Your task to perform on an android device: show emergency info Image 0: 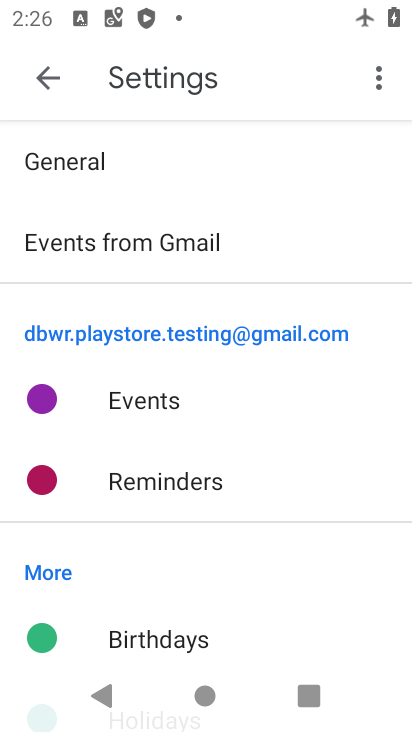
Step 0: press home button
Your task to perform on an android device: show emergency info Image 1: 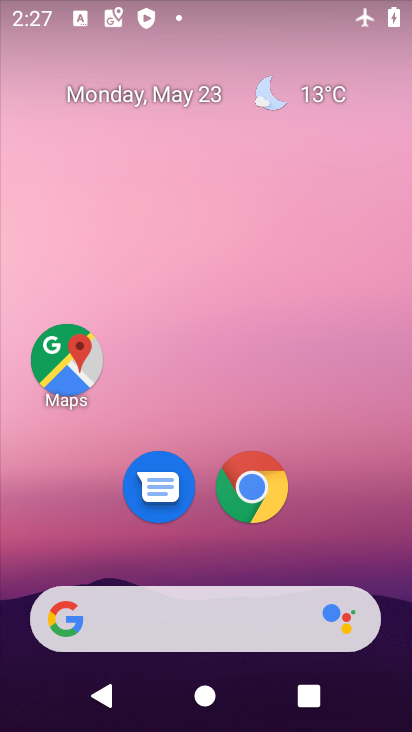
Step 1: drag from (396, 614) to (394, 119)
Your task to perform on an android device: show emergency info Image 2: 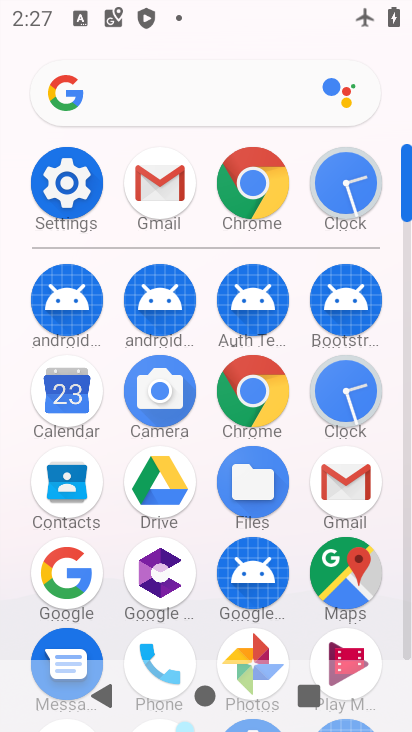
Step 2: click (407, 643)
Your task to perform on an android device: show emergency info Image 3: 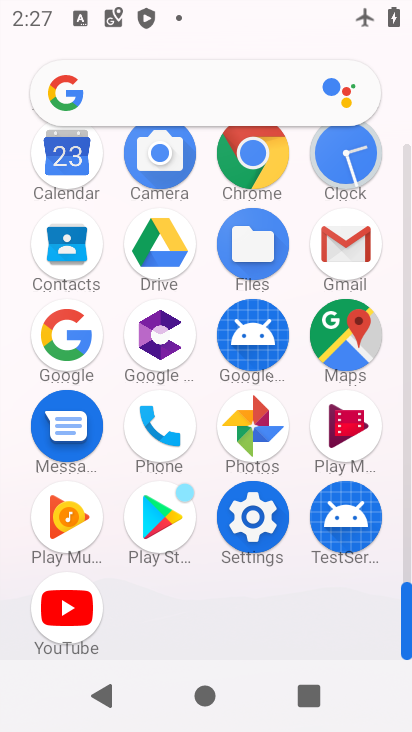
Step 3: click (250, 510)
Your task to perform on an android device: show emergency info Image 4: 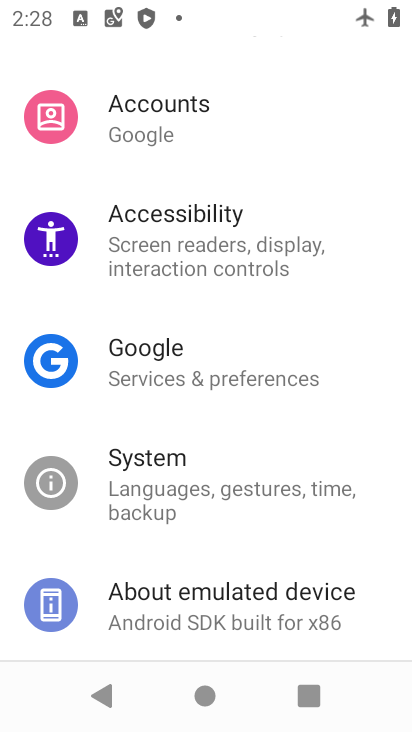
Step 4: drag from (262, 570) to (250, 305)
Your task to perform on an android device: show emergency info Image 5: 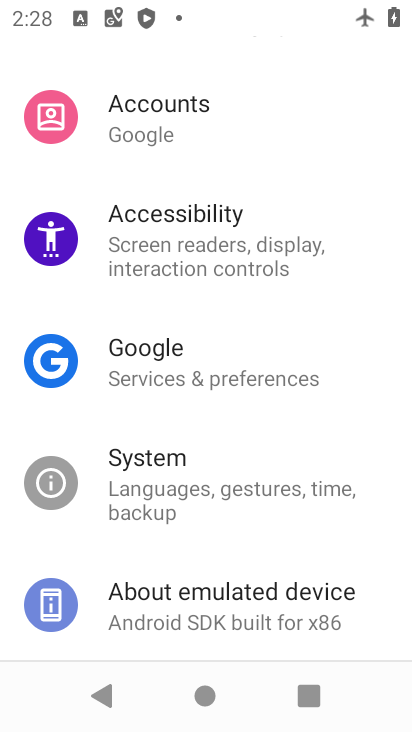
Step 5: click (236, 599)
Your task to perform on an android device: show emergency info Image 6: 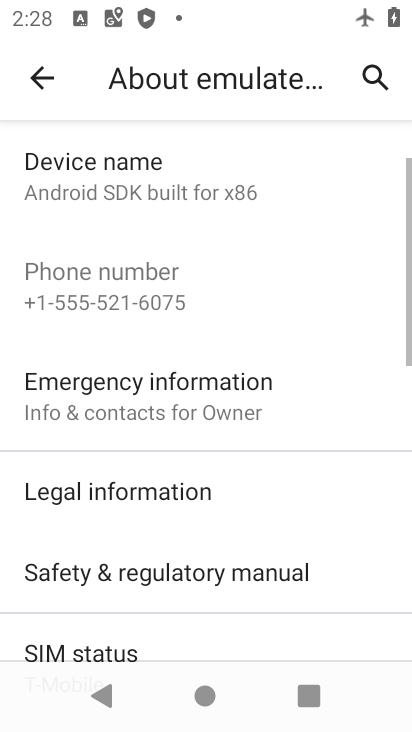
Step 6: click (173, 409)
Your task to perform on an android device: show emergency info Image 7: 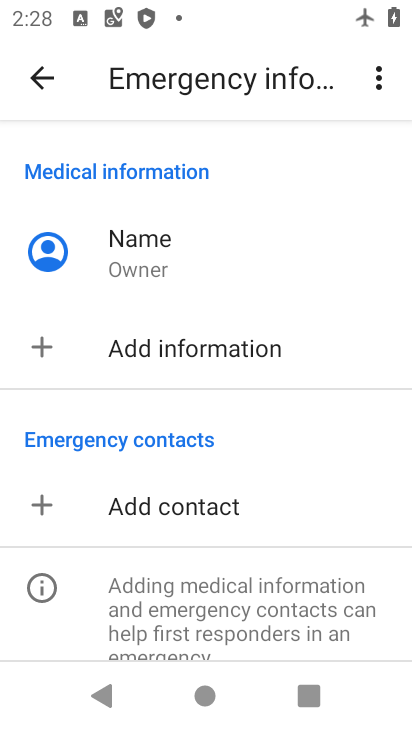
Step 7: task complete